Your task to perform on an android device: Search for a 100 ft extension cord Image 0: 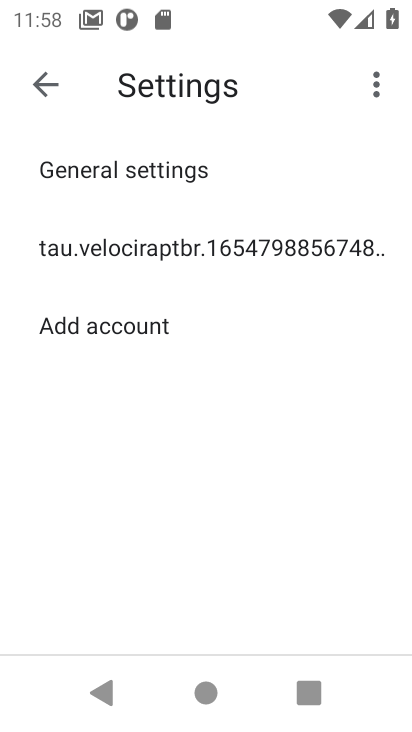
Step 0: press home button
Your task to perform on an android device: Search for a 100 ft extension cord Image 1: 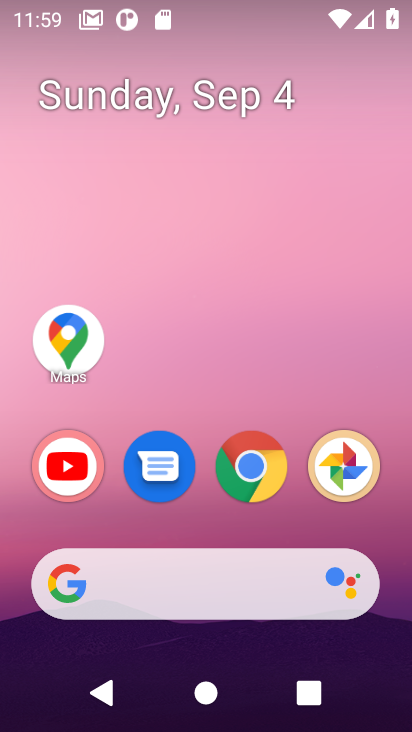
Step 1: drag from (187, 400) to (158, 48)
Your task to perform on an android device: Search for a 100 ft extension cord Image 2: 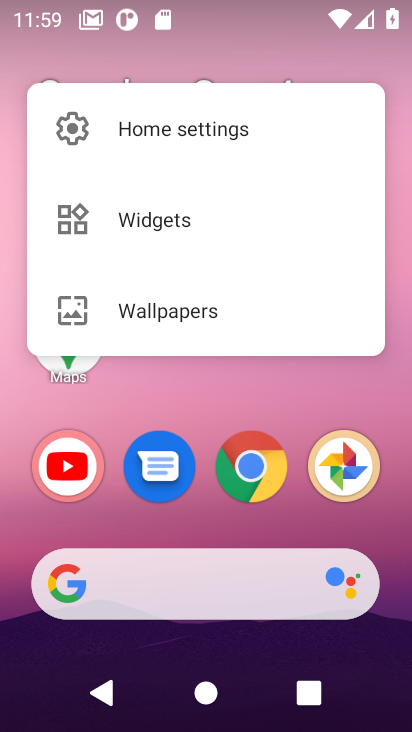
Step 2: click (139, 380)
Your task to perform on an android device: Search for a 100 ft extension cord Image 3: 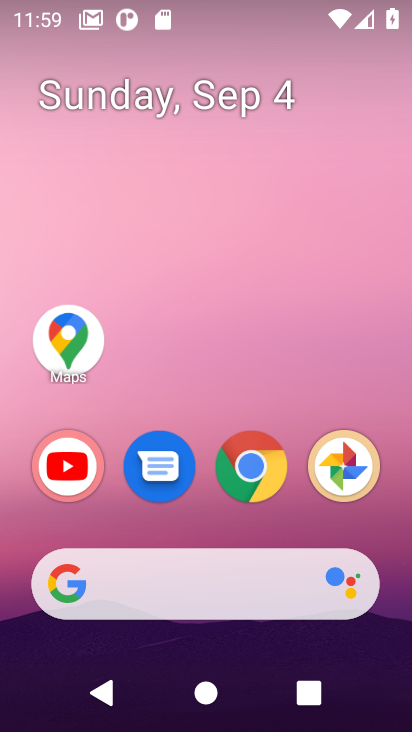
Step 3: click (250, 466)
Your task to perform on an android device: Search for a 100 ft extension cord Image 4: 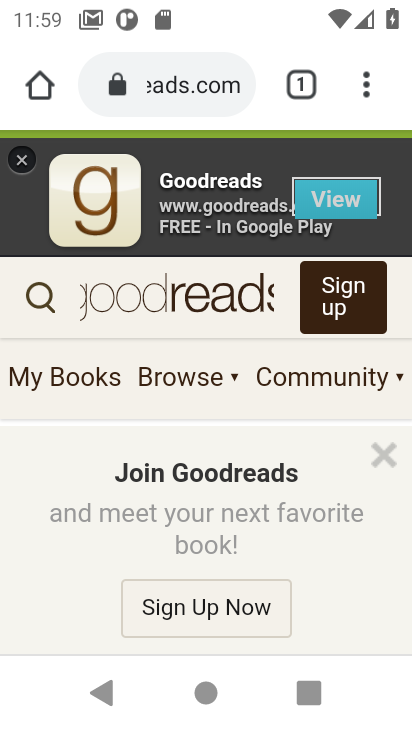
Step 4: click (187, 88)
Your task to perform on an android device: Search for a 100 ft extension cord Image 5: 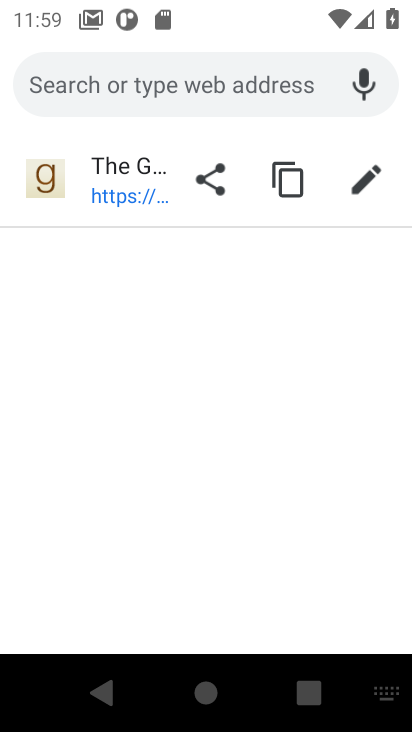
Step 5: type " 100 ft extension cord"
Your task to perform on an android device: Search for a 100 ft extension cord Image 6: 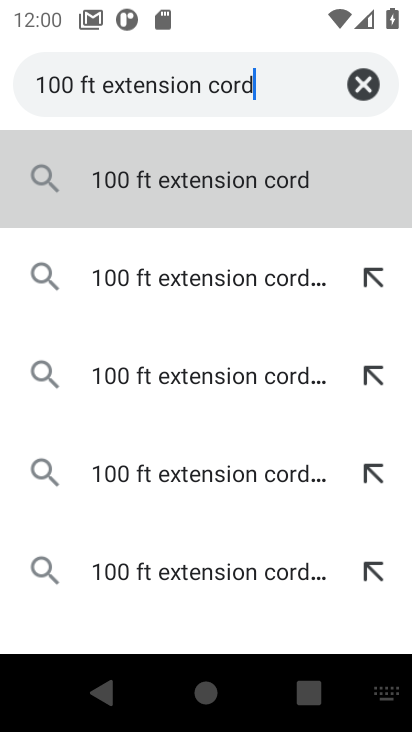
Step 6: click (261, 186)
Your task to perform on an android device: Search for a 100 ft extension cord Image 7: 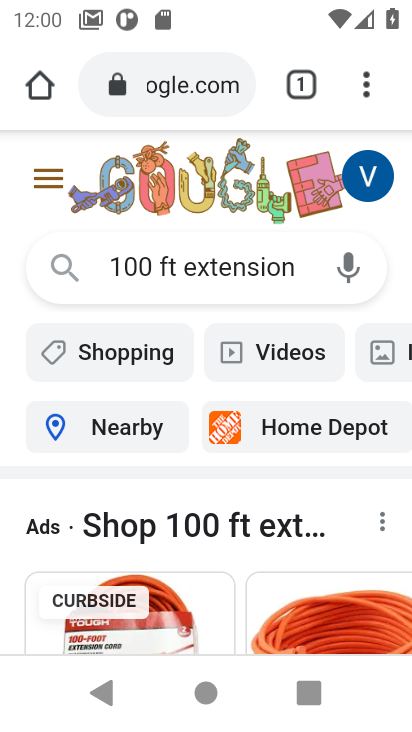
Step 7: drag from (226, 501) to (318, 189)
Your task to perform on an android device: Search for a 100 ft extension cord Image 8: 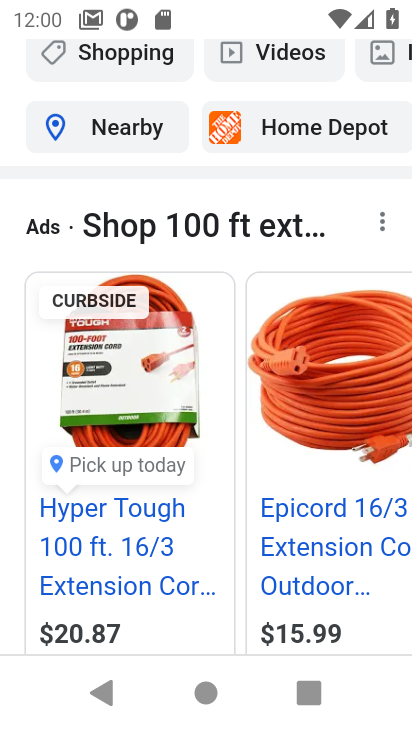
Step 8: drag from (264, 545) to (357, 120)
Your task to perform on an android device: Search for a 100 ft extension cord Image 9: 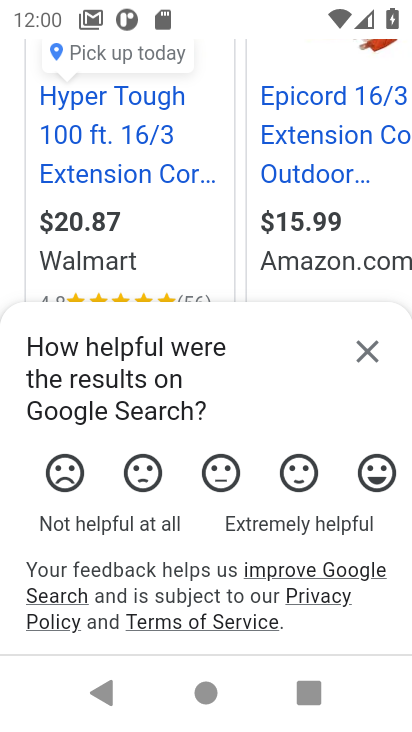
Step 9: drag from (149, 568) to (202, 56)
Your task to perform on an android device: Search for a 100 ft extension cord Image 10: 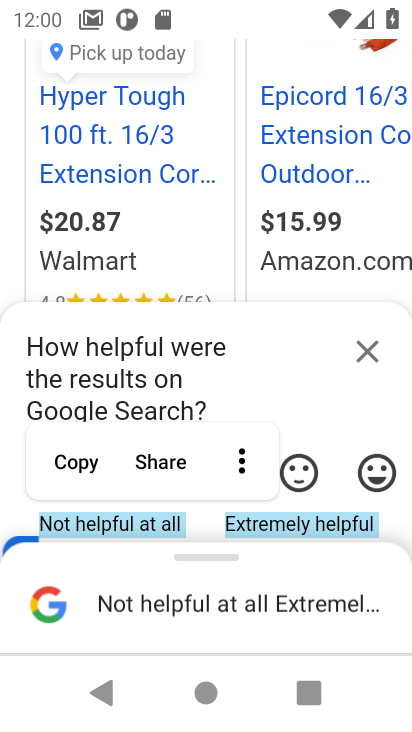
Step 10: click (370, 347)
Your task to perform on an android device: Search for a 100 ft extension cord Image 11: 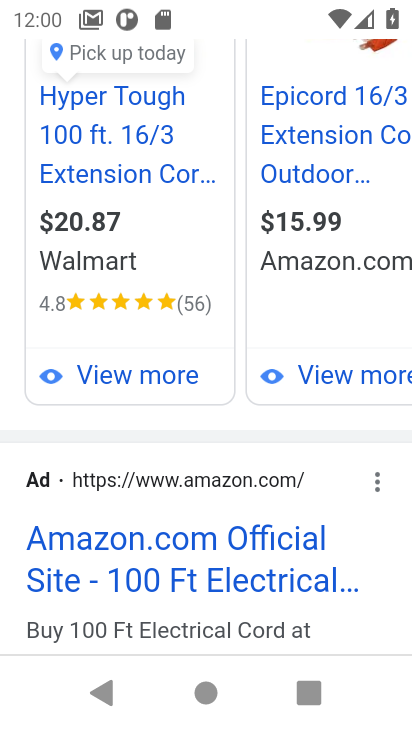
Step 11: task complete